Your task to perform on an android device: add a label to a message in the gmail app Image 0: 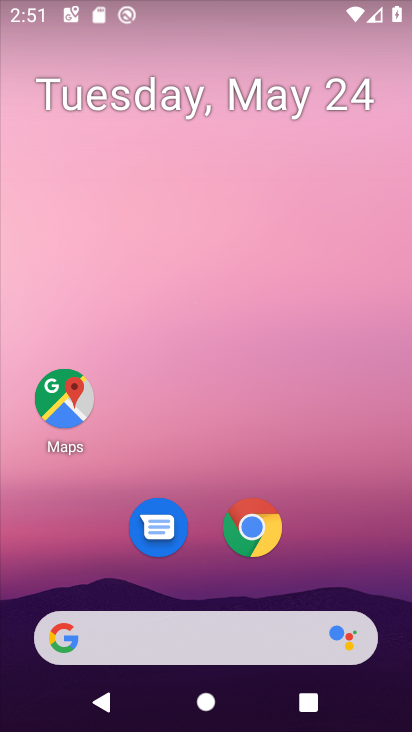
Step 0: drag from (345, 572) to (347, 11)
Your task to perform on an android device: add a label to a message in the gmail app Image 1: 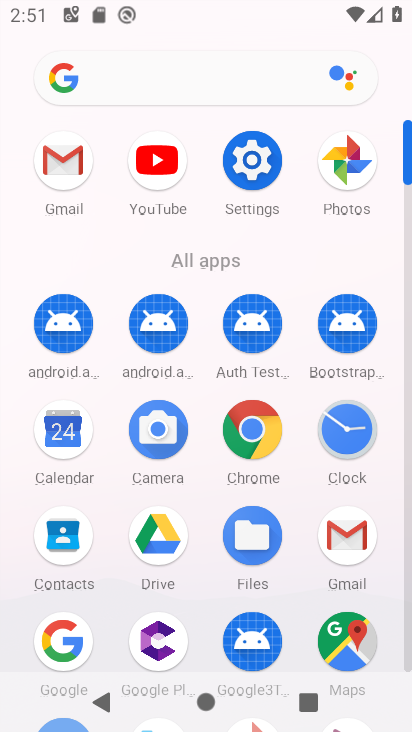
Step 1: click (65, 163)
Your task to perform on an android device: add a label to a message in the gmail app Image 2: 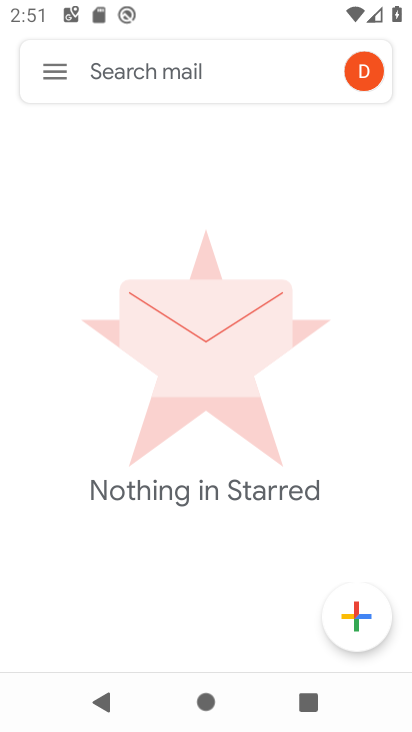
Step 2: click (51, 70)
Your task to perform on an android device: add a label to a message in the gmail app Image 3: 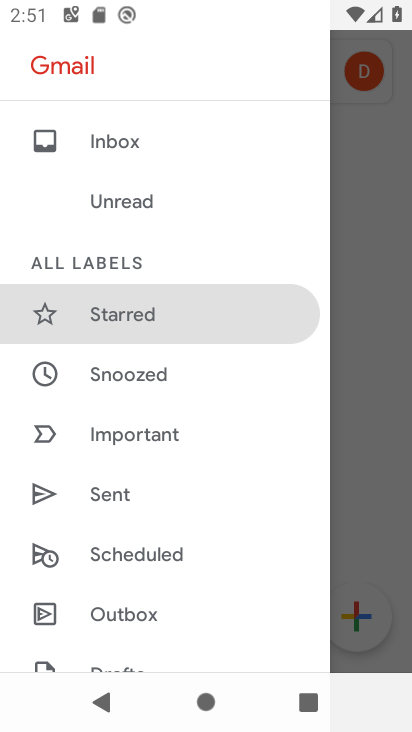
Step 3: drag from (209, 550) to (199, 335)
Your task to perform on an android device: add a label to a message in the gmail app Image 4: 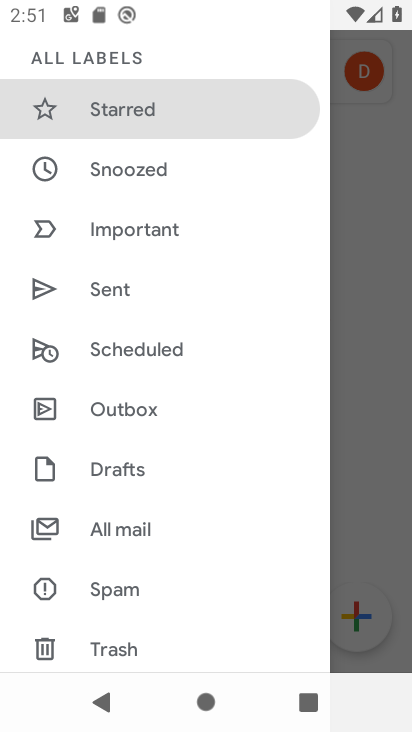
Step 4: click (97, 531)
Your task to perform on an android device: add a label to a message in the gmail app Image 5: 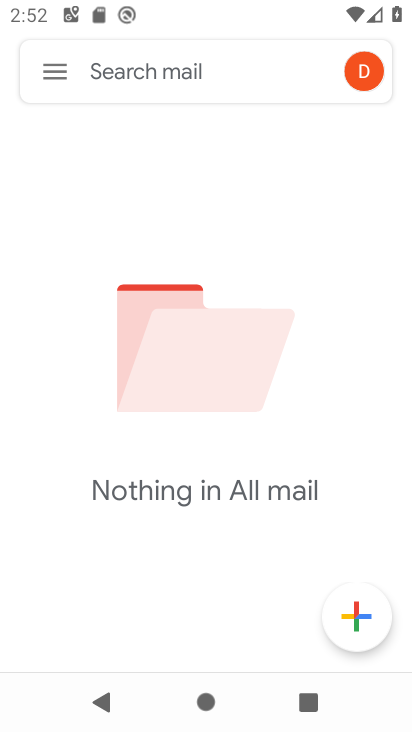
Step 5: task complete